Your task to perform on an android device: toggle show notifications on the lock screen Image 0: 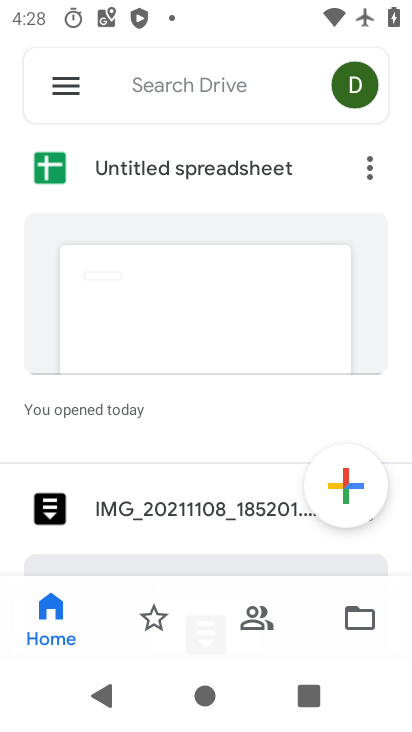
Step 0: press home button
Your task to perform on an android device: toggle show notifications on the lock screen Image 1: 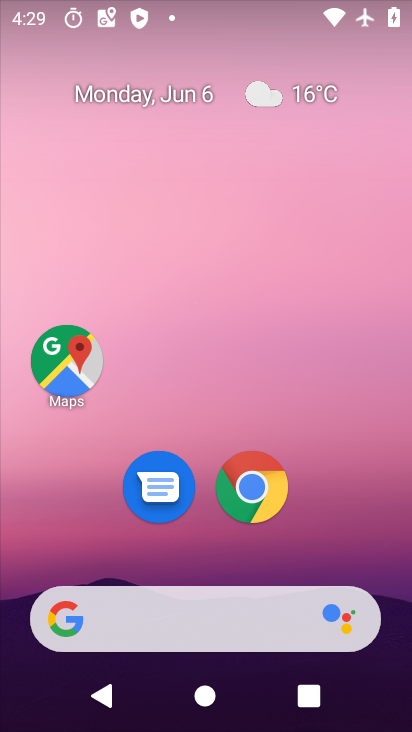
Step 1: drag from (334, 491) to (294, 89)
Your task to perform on an android device: toggle show notifications on the lock screen Image 2: 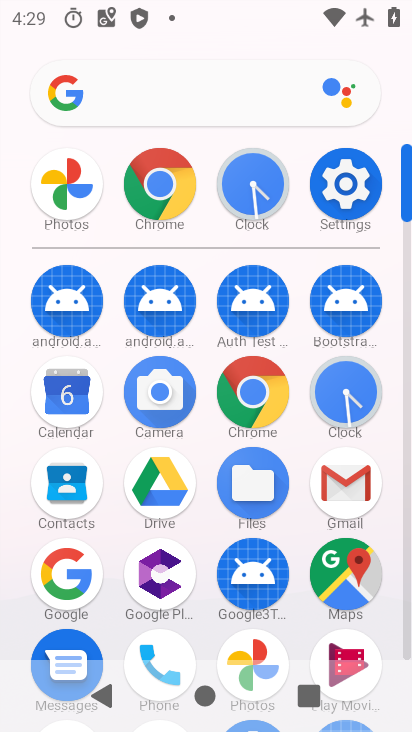
Step 2: click (349, 181)
Your task to perform on an android device: toggle show notifications on the lock screen Image 3: 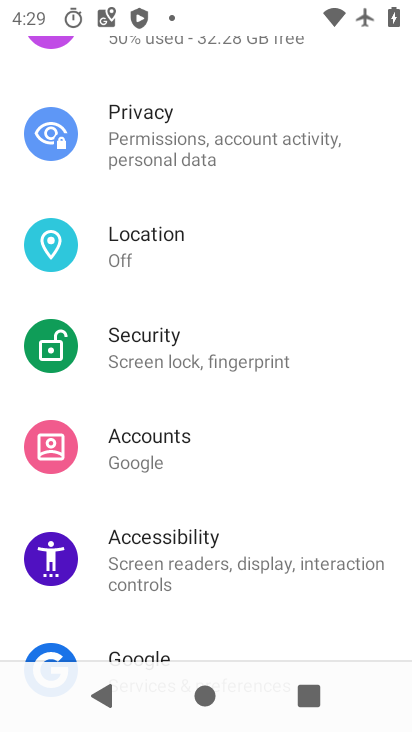
Step 3: drag from (285, 155) to (251, 586)
Your task to perform on an android device: toggle show notifications on the lock screen Image 4: 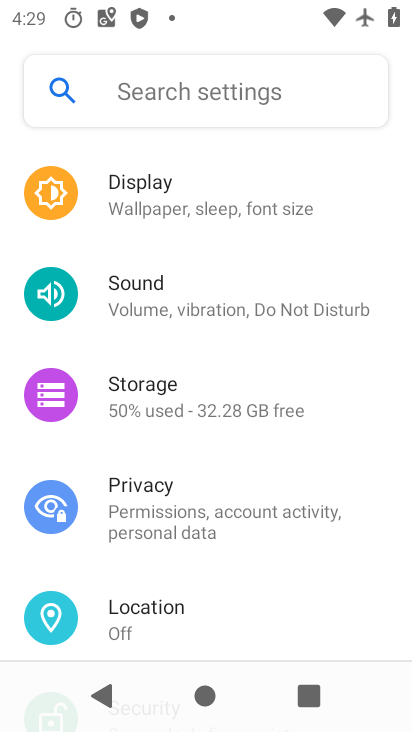
Step 4: drag from (251, 227) to (213, 569)
Your task to perform on an android device: toggle show notifications on the lock screen Image 5: 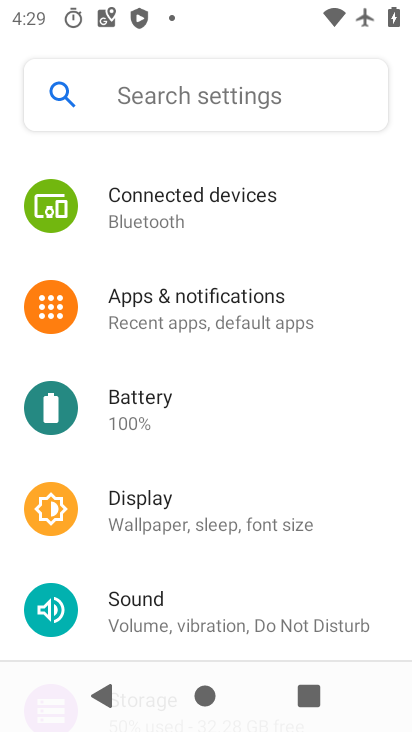
Step 5: click (212, 299)
Your task to perform on an android device: toggle show notifications on the lock screen Image 6: 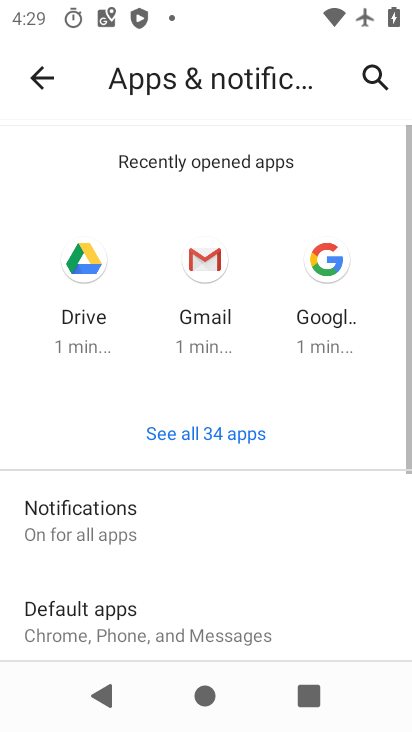
Step 6: click (169, 503)
Your task to perform on an android device: toggle show notifications on the lock screen Image 7: 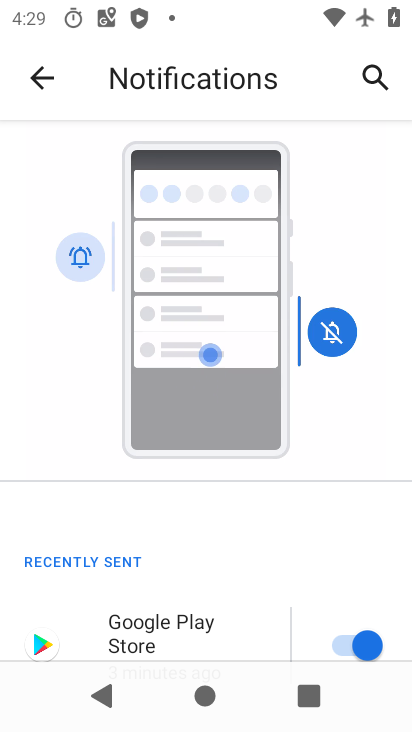
Step 7: drag from (281, 516) to (302, 103)
Your task to perform on an android device: toggle show notifications on the lock screen Image 8: 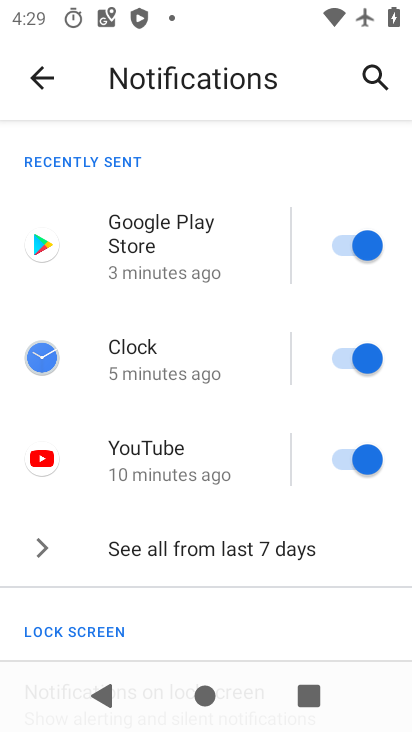
Step 8: drag from (268, 609) to (283, 64)
Your task to perform on an android device: toggle show notifications on the lock screen Image 9: 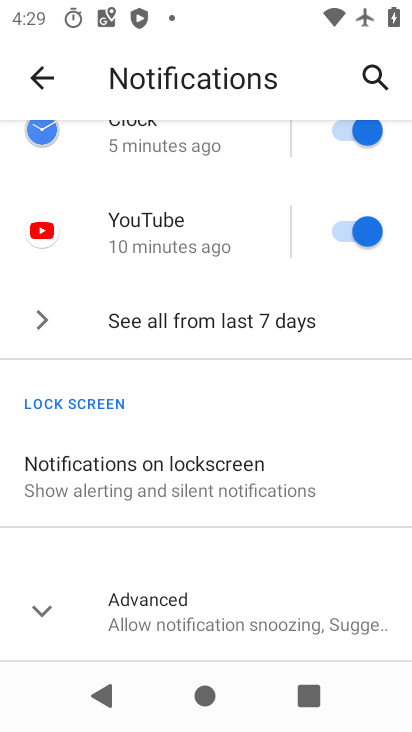
Step 9: click (255, 631)
Your task to perform on an android device: toggle show notifications on the lock screen Image 10: 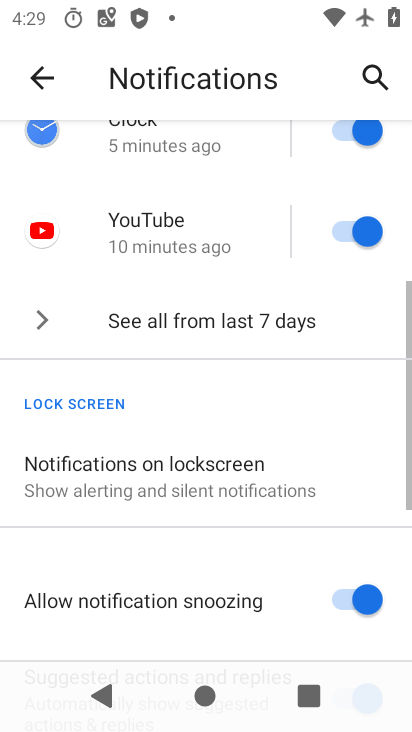
Step 10: click (242, 478)
Your task to perform on an android device: toggle show notifications on the lock screen Image 11: 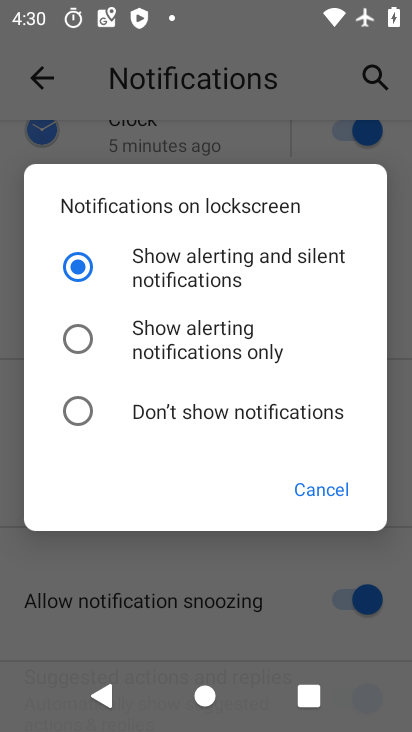
Step 11: click (252, 350)
Your task to perform on an android device: toggle show notifications on the lock screen Image 12: 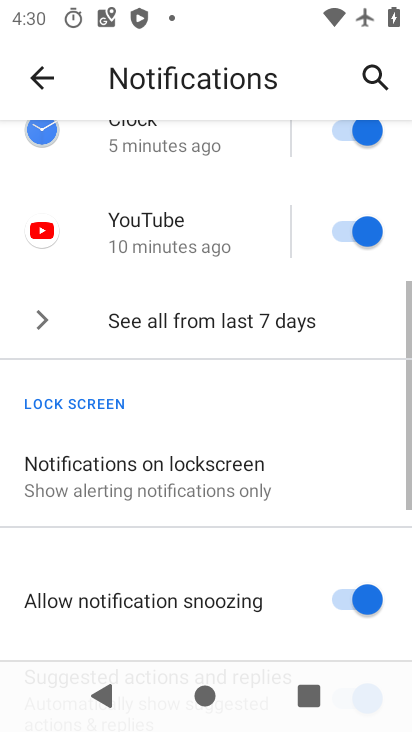
Step 12: task complete